Your task to perform on an android device: Go to privacy settings Image 0: 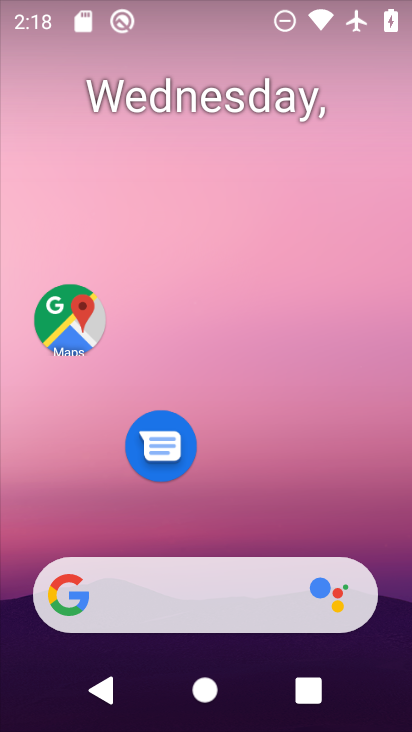
Step 0: drag from (320, 534) to (226, 28)
Your task to perform on an android device: Go to privacy settings Image 1: 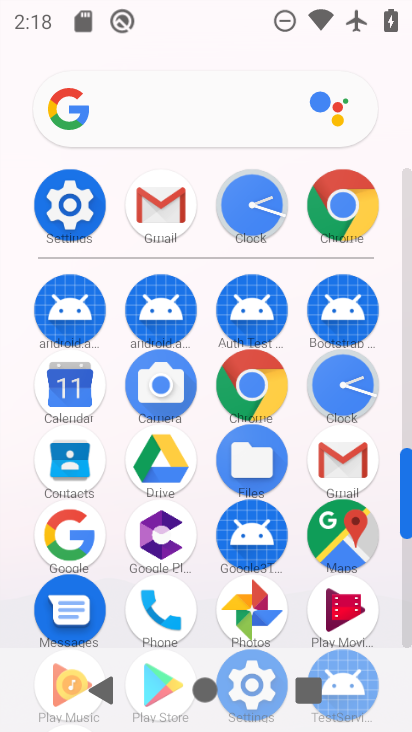
Step 1: click (46, 222)
Your task to perform on an android device: Go to privacy settings Image 2: 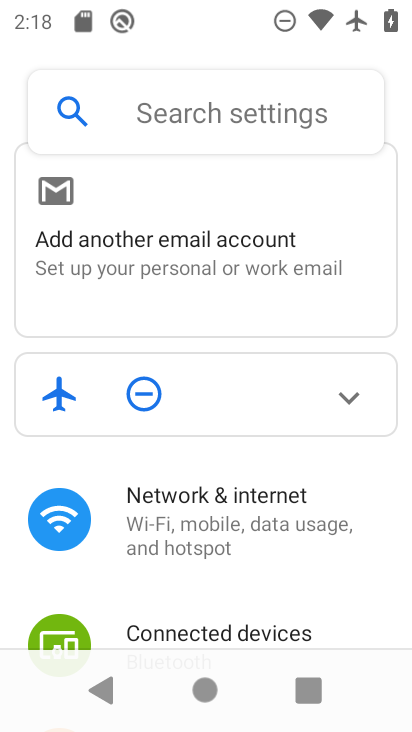
Step 2: drag from (281, 528) to (322, 10)
Your task to perform on an android device: Go to privacy settings Image 3: 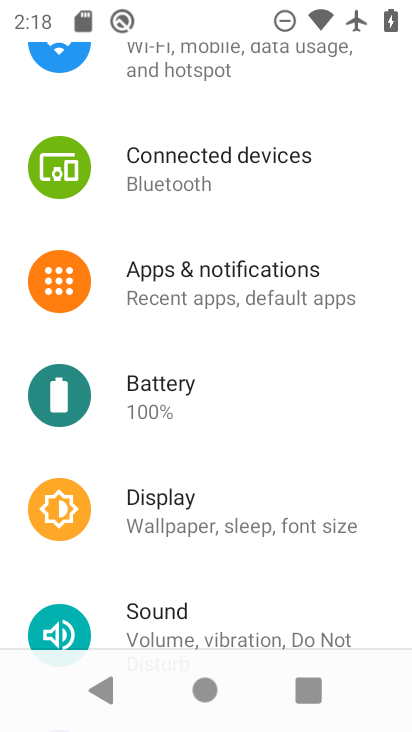
Step 3: click (191, 424)
Your task to perform on an android device: Go to privacy settings Image 4: 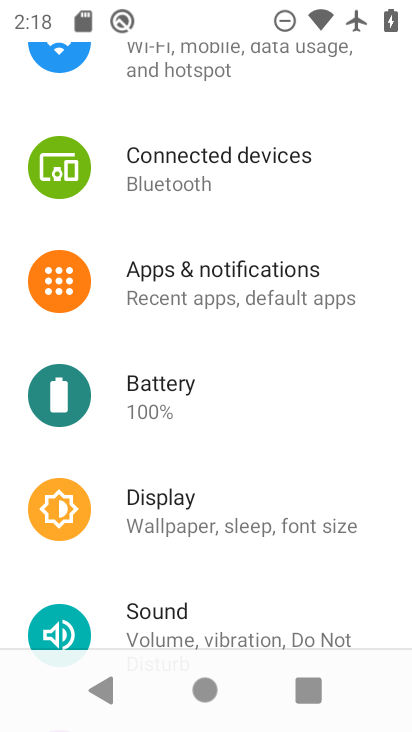
Step 4: drag from (191, 424) to (63, 4)
Your task to perform on an android device: Go to privacy settings Image 5: 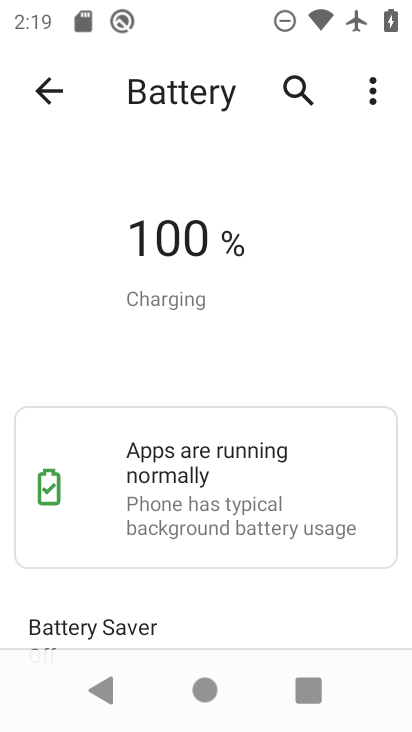
Step 5: click (50, 99)
Your task to perform on an android device: Go to privacy settings Image 6: 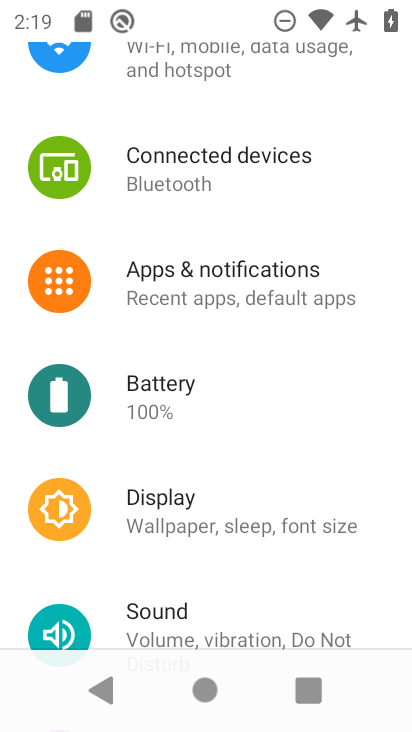
Step 6: drag from (194, 552) to (145, 122)
Your task to perform on an android device: Go to privacy settings Image 7: 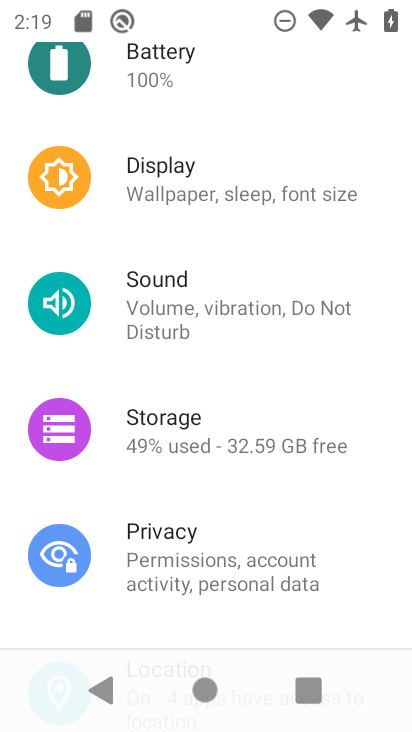
Step 7: drag from (192, 596) to (188, 470)
Your task to perform on an android device: Go to privacy settings Image 8: 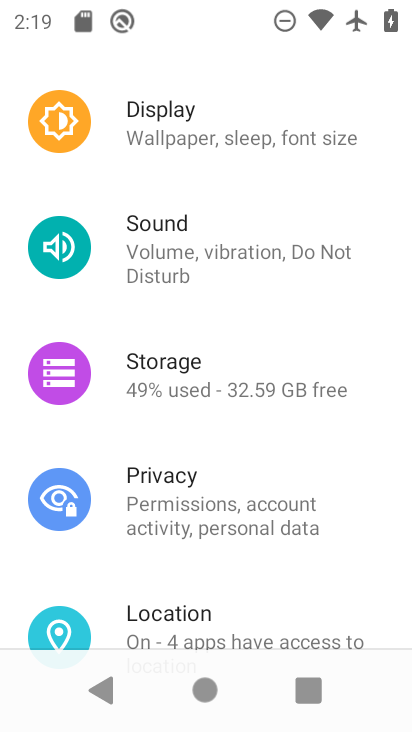
Step 8: click (188, 470)
Your task to perform on an android device: Go to privacy settings Image 9: 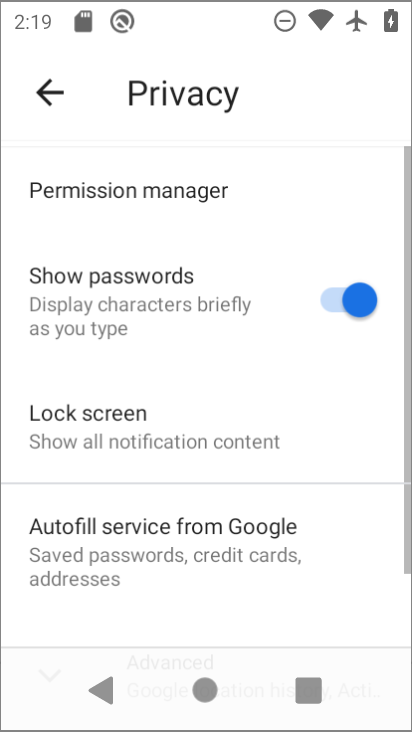
Step 9: task complete